Your task to perform on an android device: add a label to a message in the gmail app Image 0: 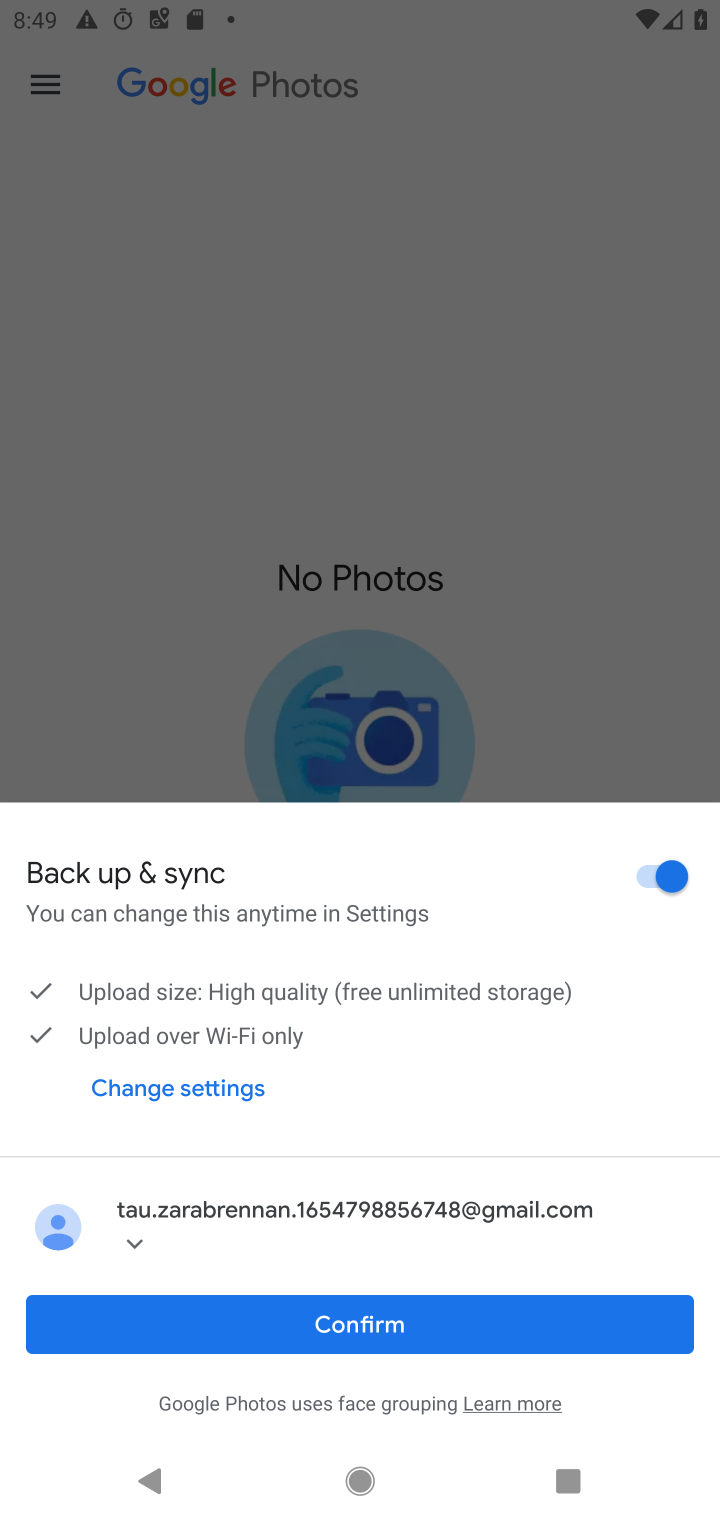
Step 0: press home button
Your task to perform on an android device: add a label to a message in the gmail app Image 1: 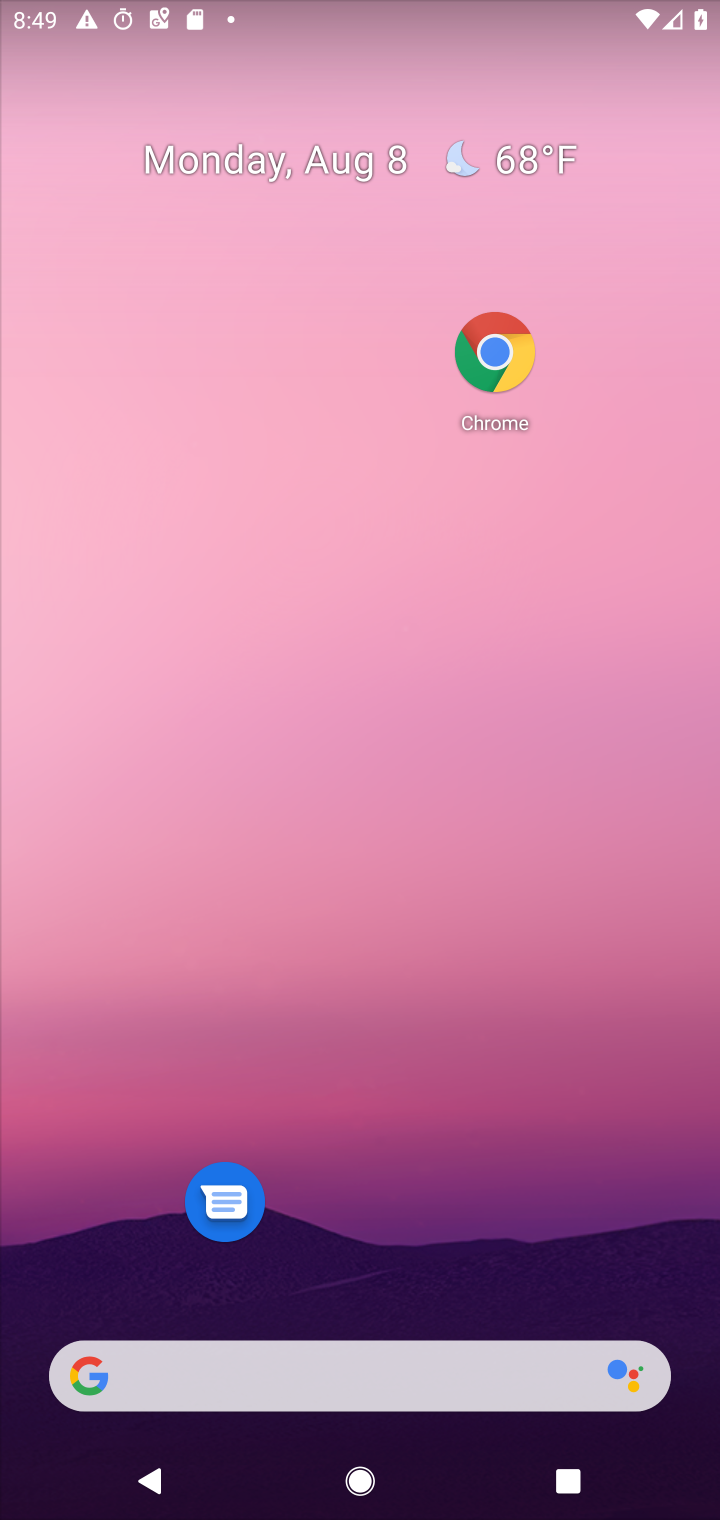
Step 1: drag from (506, 1270) to (529, 383)
Your task to perform on an android device: add a label to a message in the gmail app Image 2: 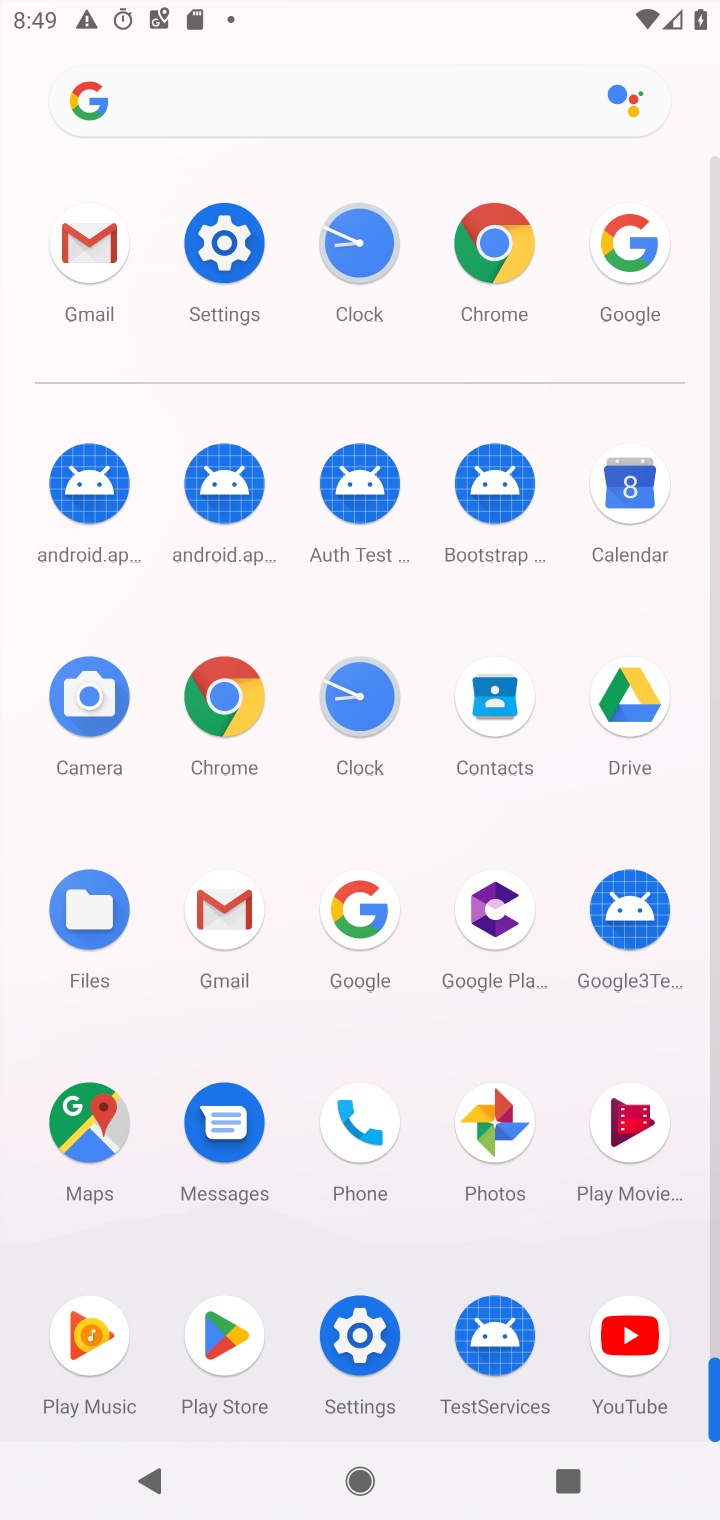
Step 2: click (229, 918)
Your task to perform on an android device: add a label to a message in the gmail app Image 3: 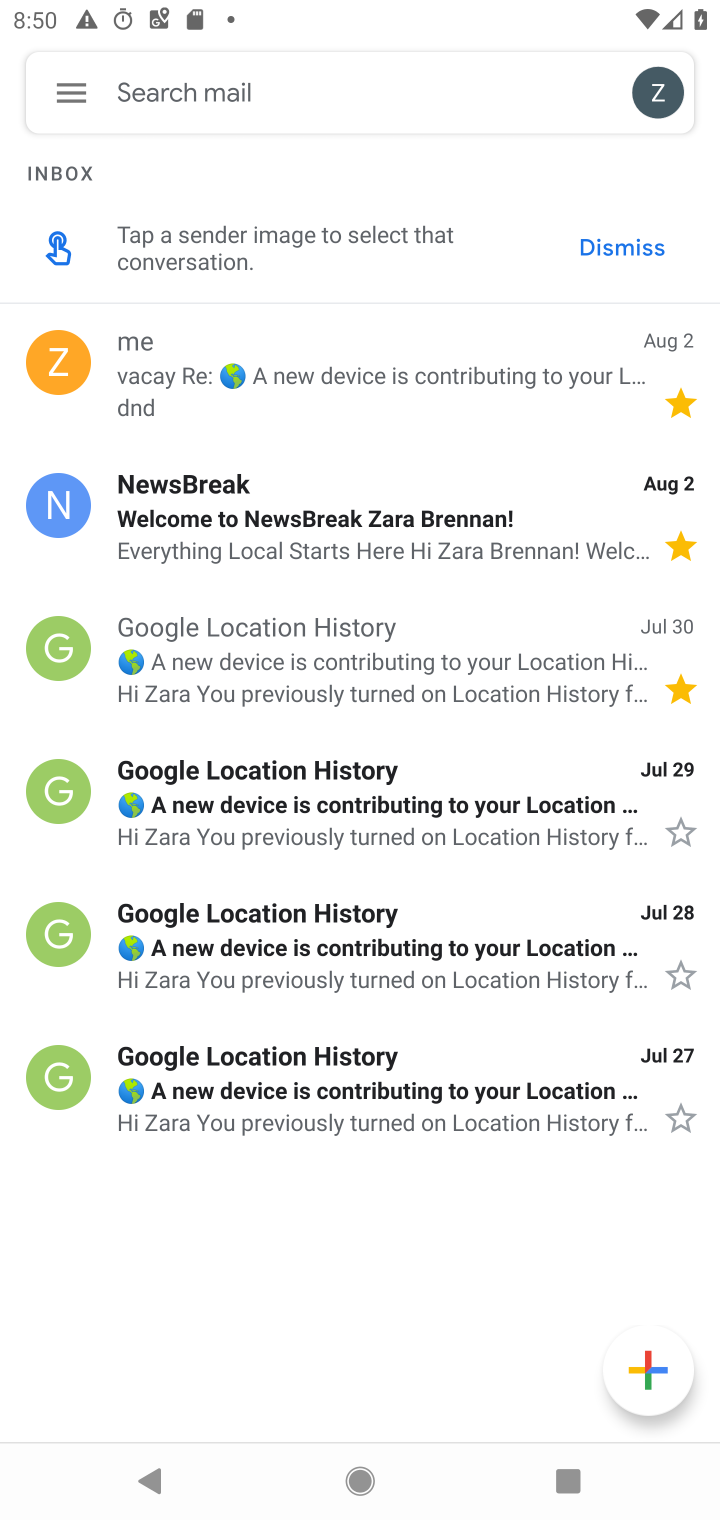
Step 3: click (78, 99)
Your task to perform on an android device: add a label to a message in the gmail app Image 4: 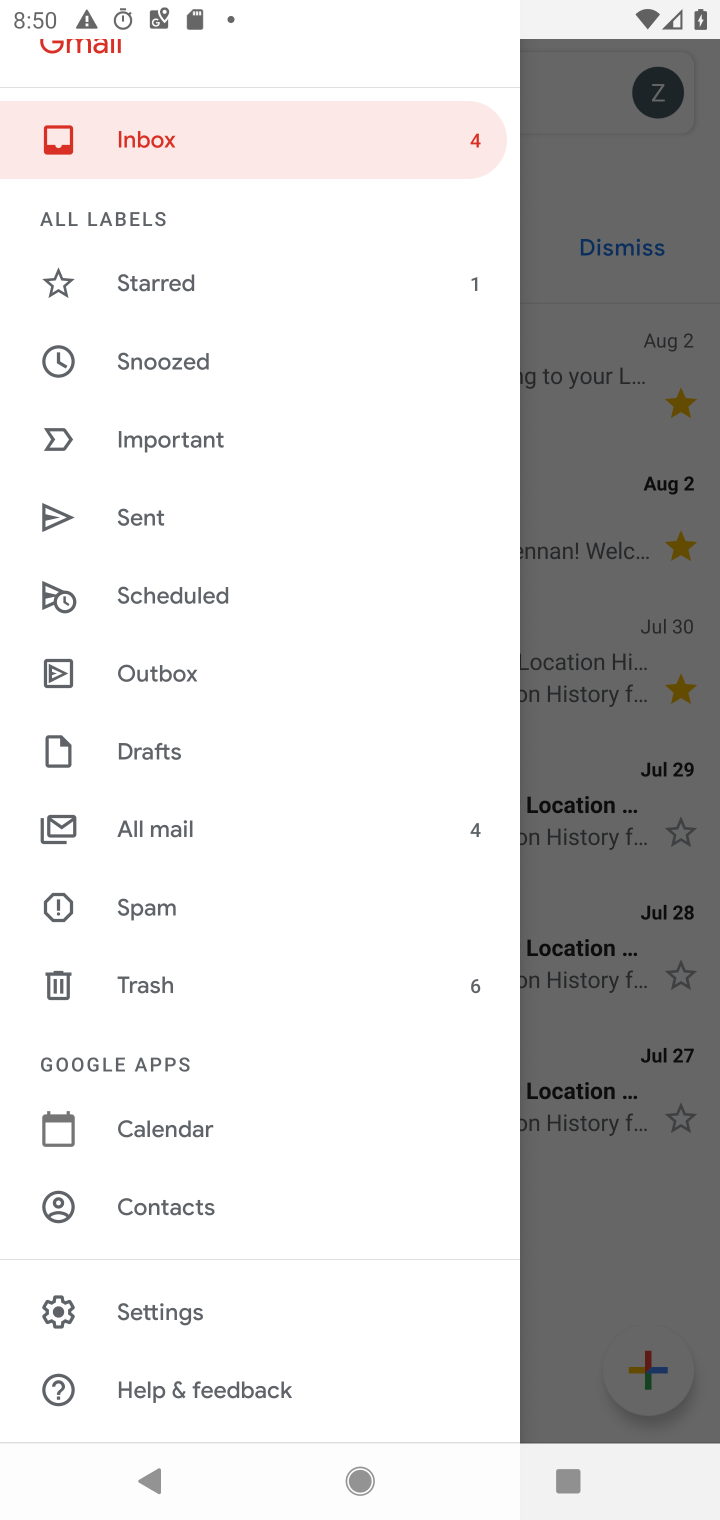
Step 4: click (174, 826)
Your task to perform on an android device: add a label to a message in the gmail app Image 5: 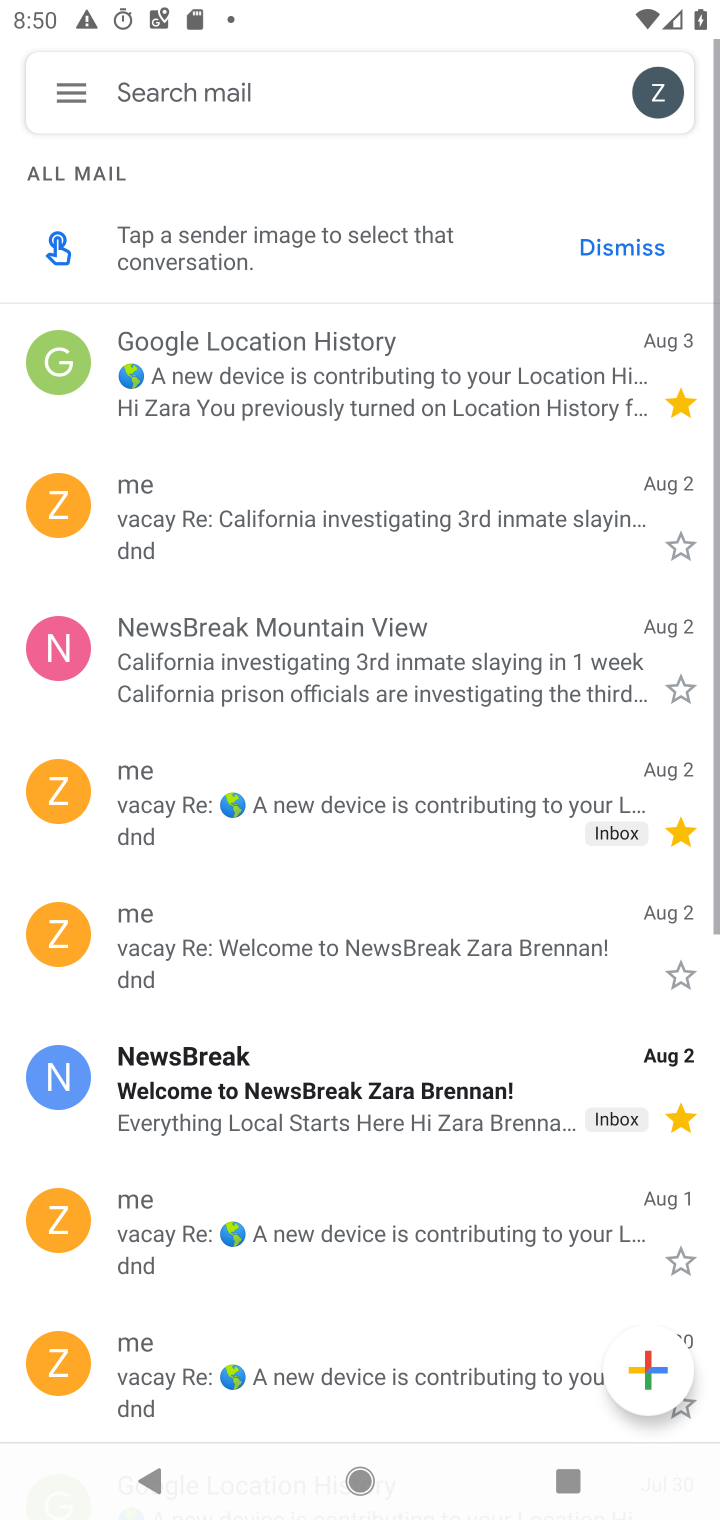
Step 5: click (341, 362)
Your task to perform on an android device: add a label to a message in the gmail app Image 6: 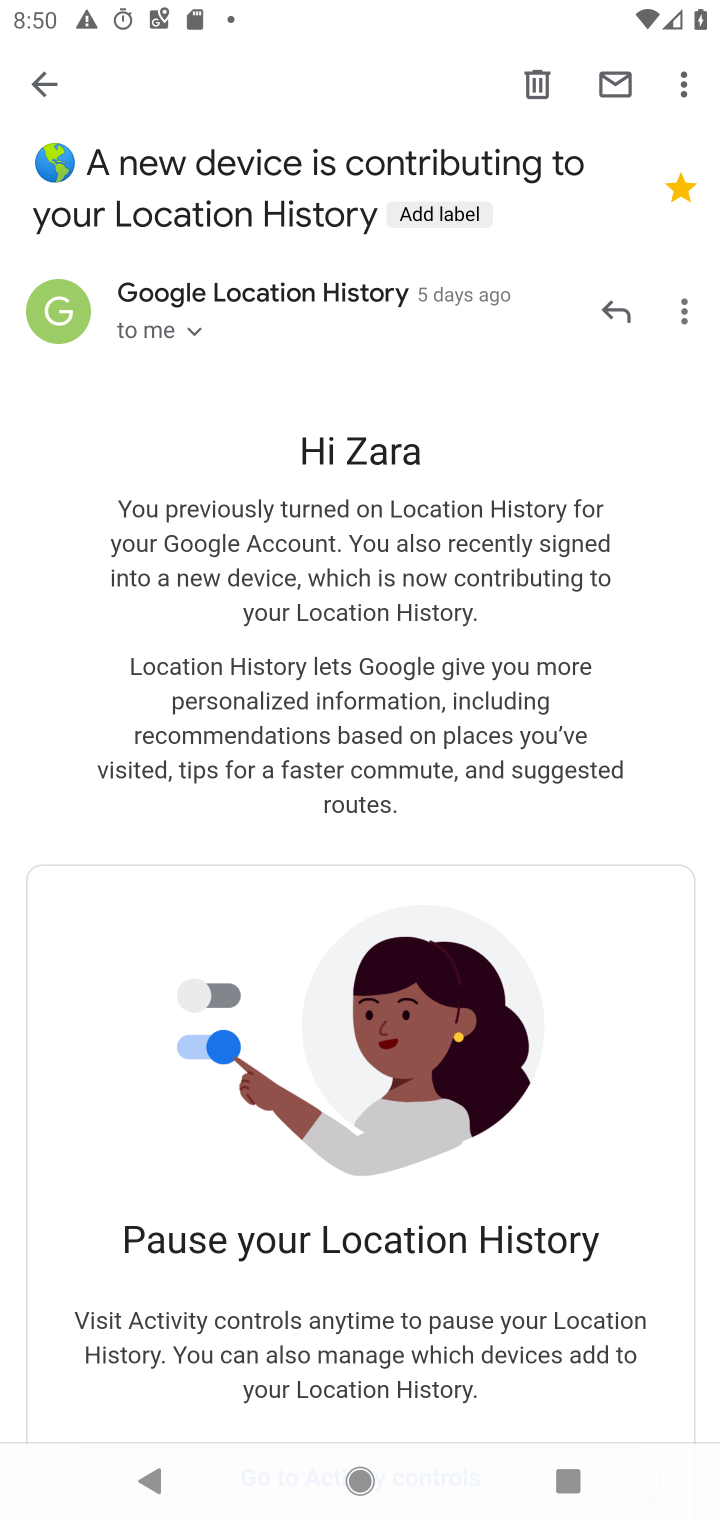
Step 6: click (683, 93)
Your task to perform on an android device: add a label to a message in the gmail app Image 7: 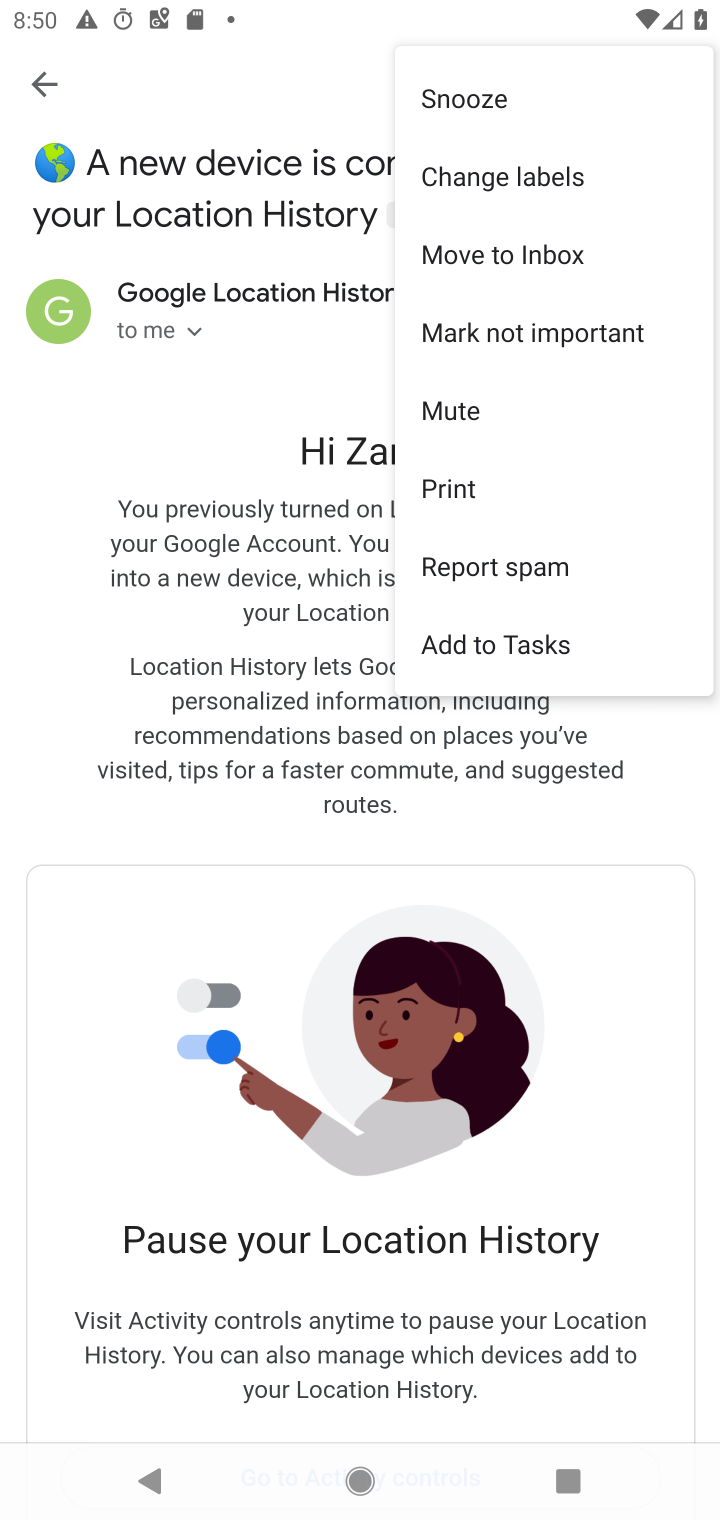
Step 7: click (578, 169)
Your task to perform on an android device: add a label to a message in the gmail app Image 8: 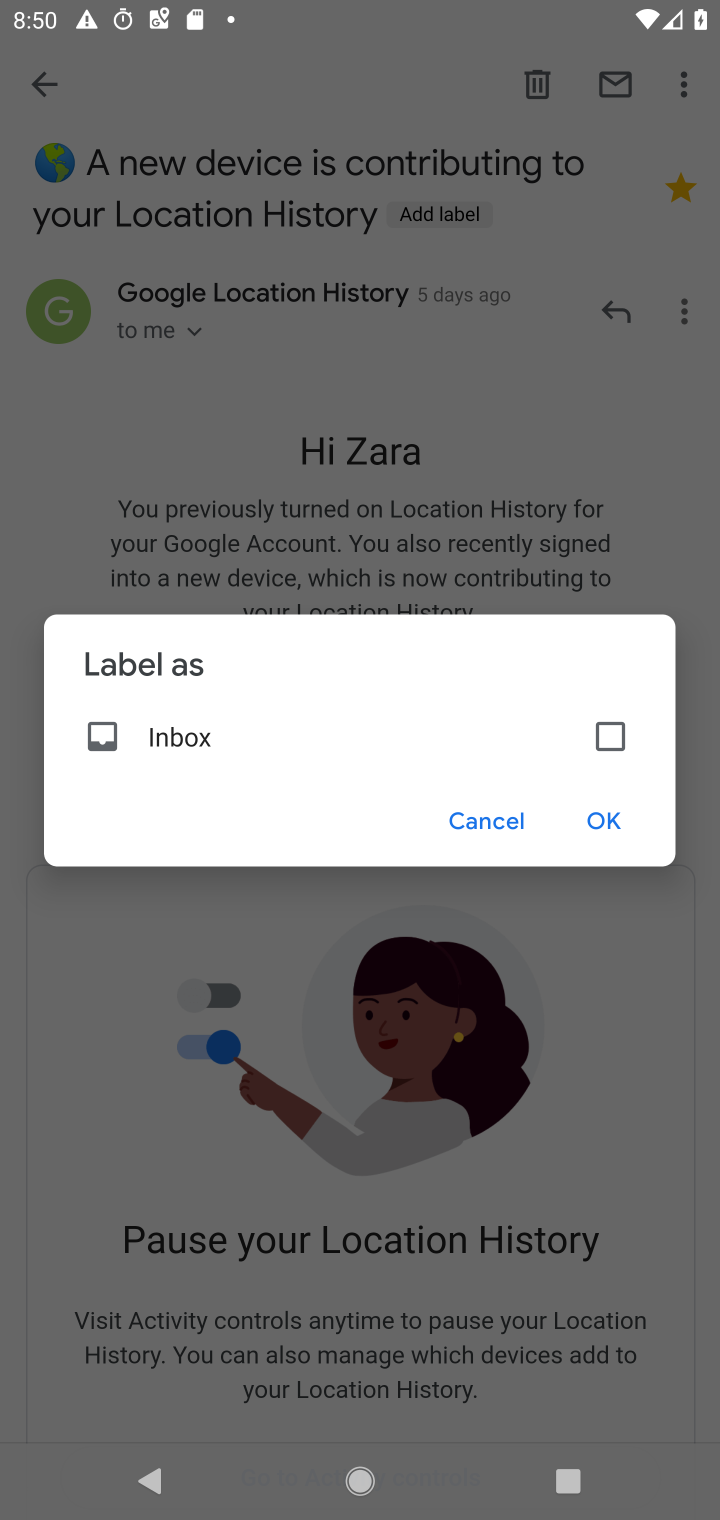
Step 8: click (601, 736)
Your task to perform on an android device: add a label to a message in the gmail app Image 9: 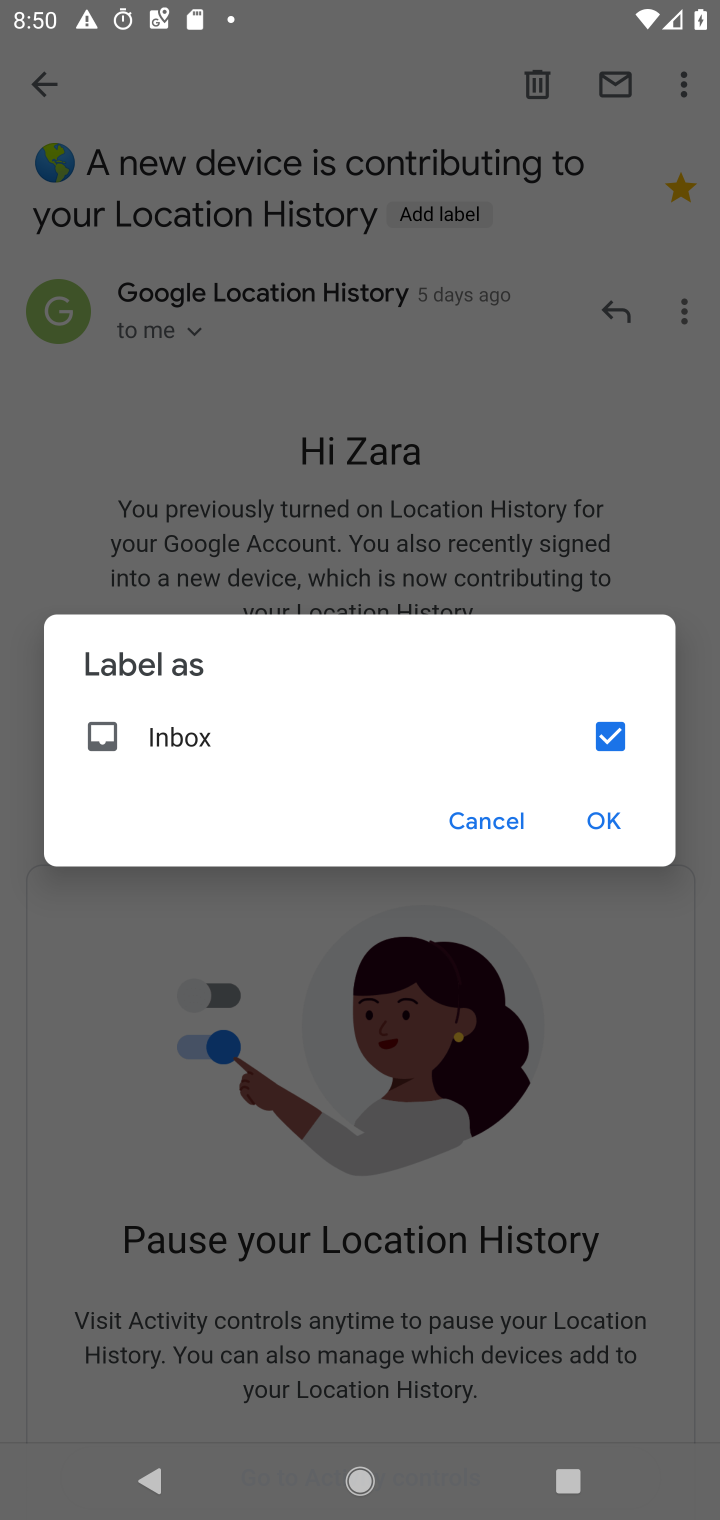
Step 9: click (606, 833)
Your task to perform on an android device: add a label to a message in the gmail app Image 10: 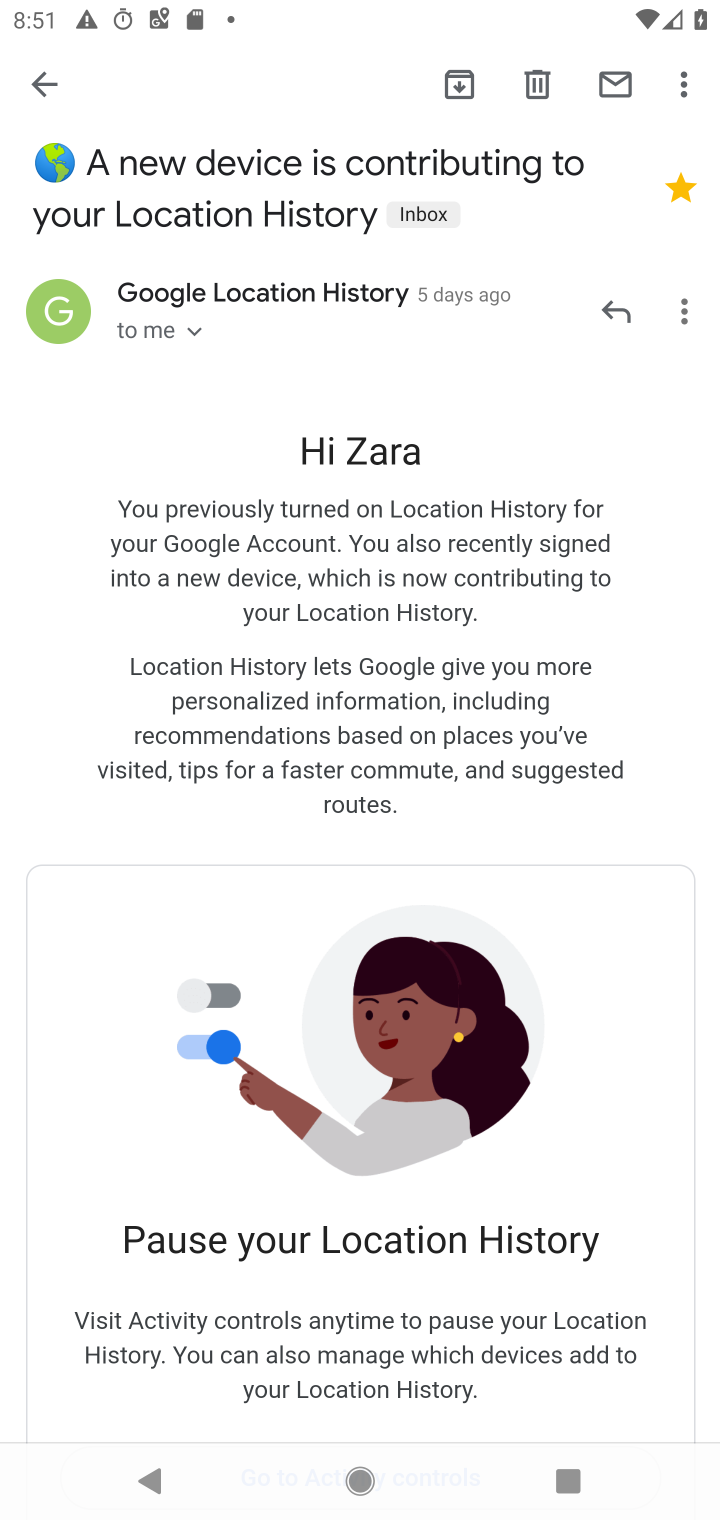
Step 10: task complete